Your task to perform on an android device: What's the news in Jamaica? Image 0: 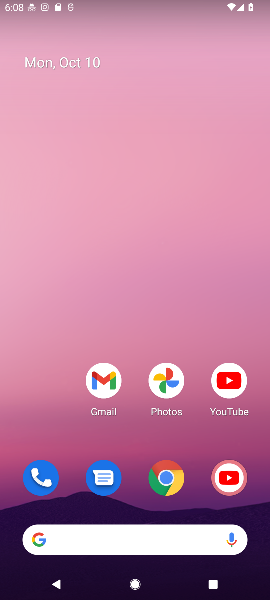
Step 0: click (219, 543)
Your task to perform on an android device: What's the news in Jamaica? Image 1: 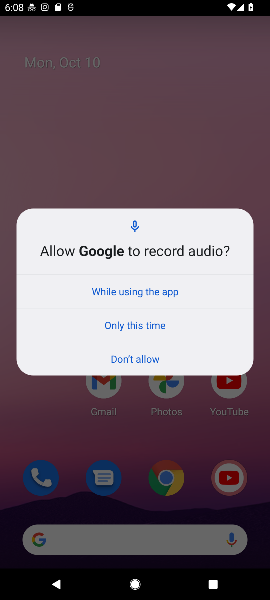
Step 1: press back button
Your task to perform on an android device: What's the news in Jamaica? Image 2: 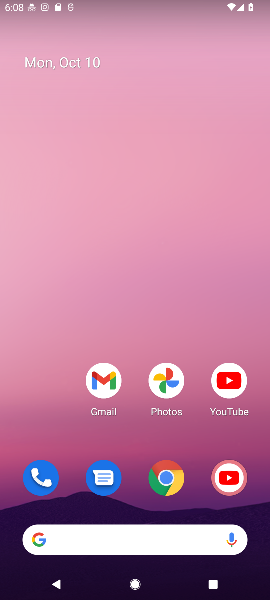
Step 2: click (146, 464)
Your task to perform on an android device: What's the news in Jamaica? Image 3: 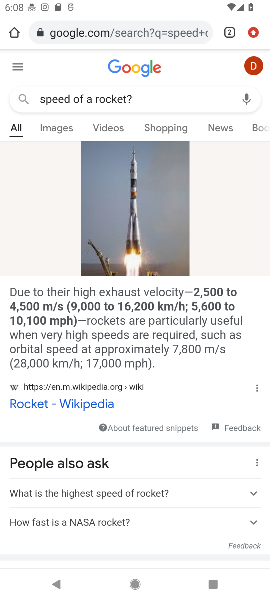
Step 3: click (61, 38)
Your task to perform on an android device: What's the news in Jamaica? Image 4: 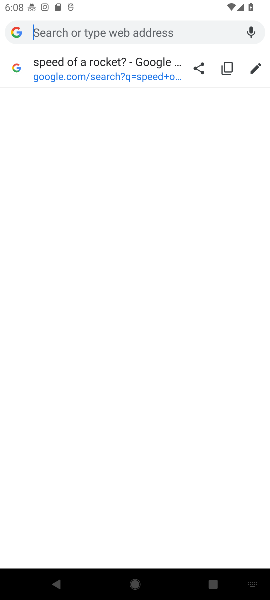
Step 4: type "What's the news in Jamaica?"
Your task to perform on an android device: What's the news in Jamaica? Image 5: 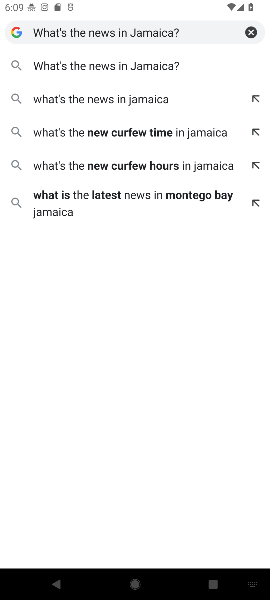
Step 5: click (94, 72)
Your task to perform on an android device: What's the news in Jamaica? Image 6: 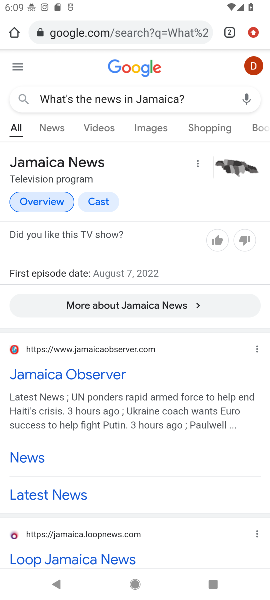
Step 6: click (48, 131)
Your task to perform on an android device: What's the news in Jamaica? Image 7: 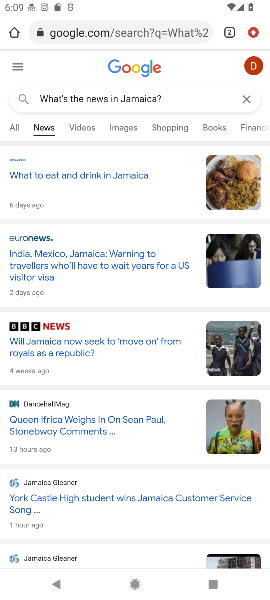
Step 7: task complete